Your task to perform on an android device: change the clock style Image 0: 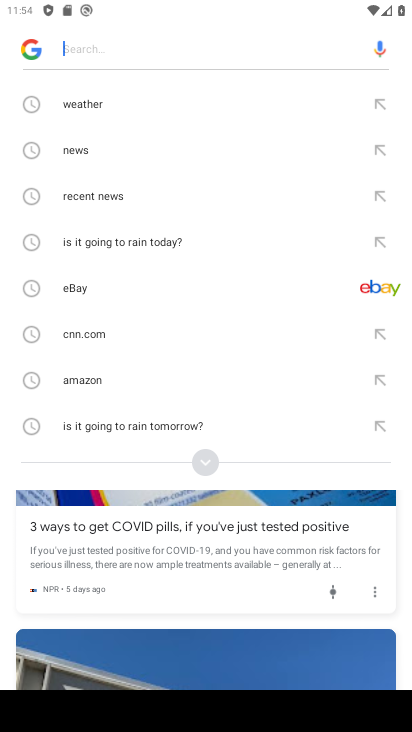
Step 0: press home button
Your task to perform on an android device: change the clock style Image 1: 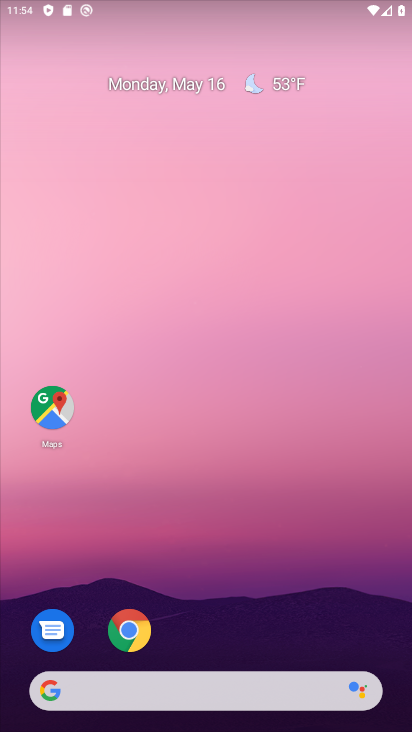
Step 1: drag from (259, 650) to (267, 229)
Your task to perform on an android device: change the clock style Image 2: 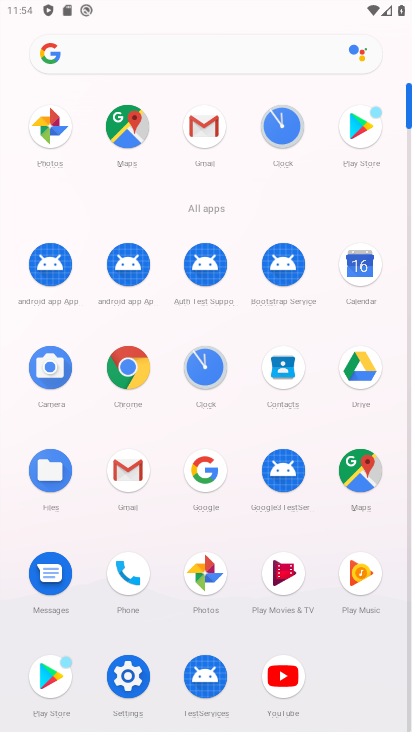
Step 2: click (198, 380)
Your task to perform on an android device: change the clock style Image 3: 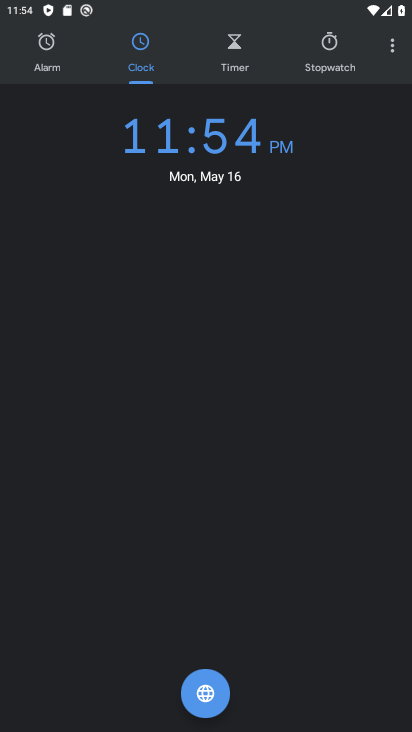
Step 3: click (394, 43)
Your task to perform on an android device: change the clock style Image 4: 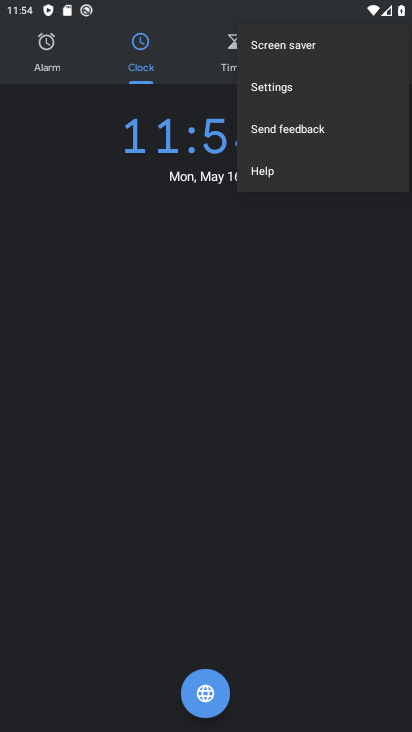
Step 4: click (264, 95)
Your task to perform on an android device: change the clock style Image 5: 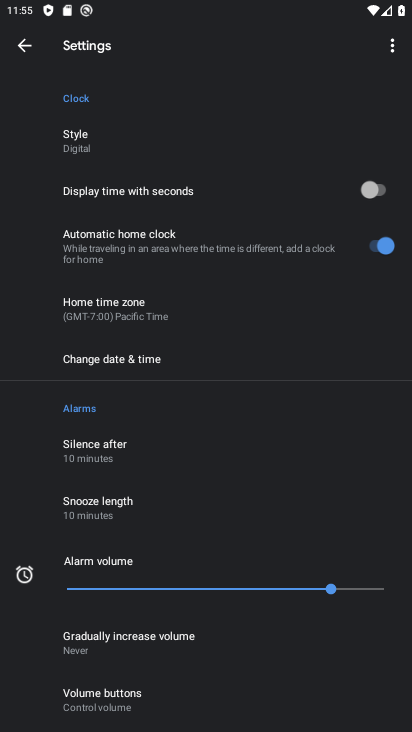
Step 5: click (161, 140)
Your task to perform on an android device: change the clock style Image 6: 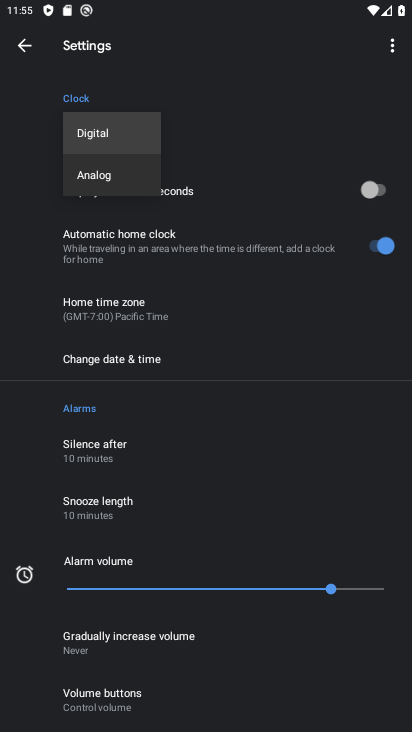
Step 6: click (114, 179)
Your task to perform on an android device: change the clock style Image 7: 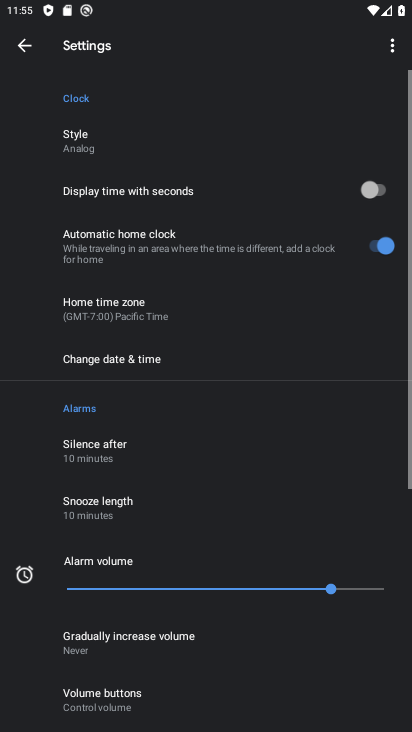
Step 7: task complete